Your task to perform on an android device: Show me recent news Image 0: 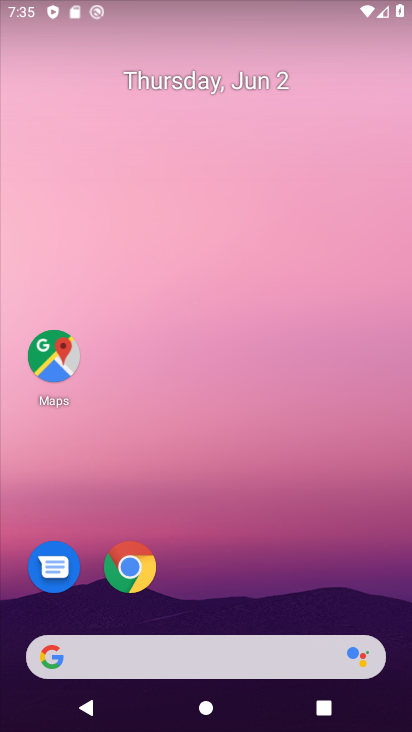
Step 0: drag from (80, 234) to (389, 264)
Your task to perform on an android device: Show me recent news Image 1: 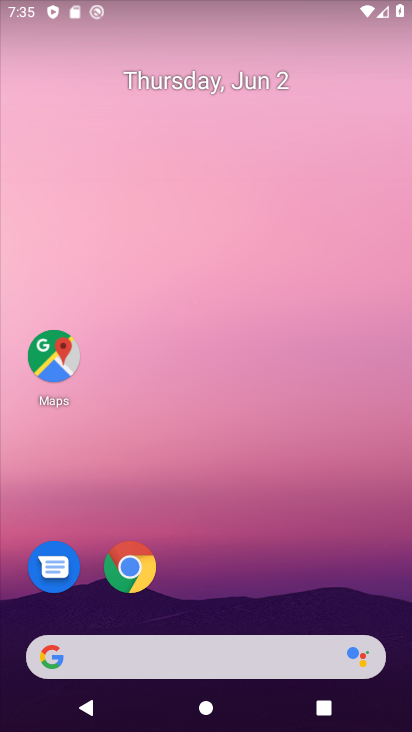
Step 1: task complete